Your task to perform on an android device: change the clock display to analog Image 0: 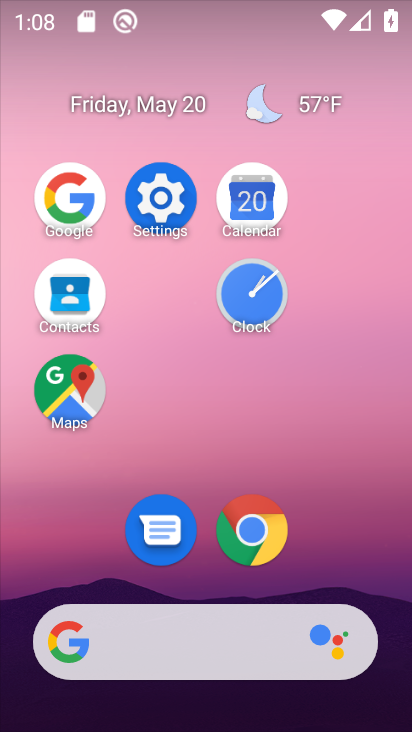
Step 0: click (262, 291)
Your task to perform on an android device: change the clock display to analog Image 1: 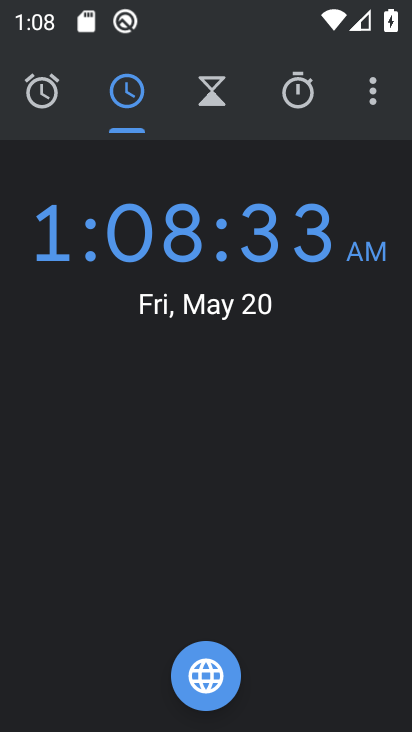
Step 1: click (390, 109)
Your task to perform on an android device: change the clock display to analog Image 2: 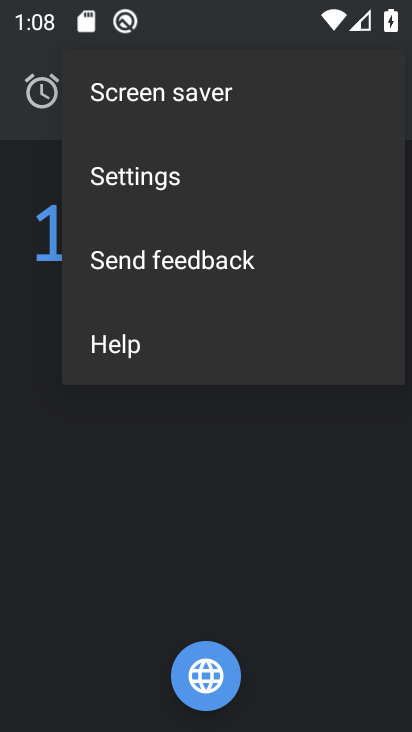
Step 2: click (117, 166)
Your task to perform on an android device: change the clock display to analog Image 3: 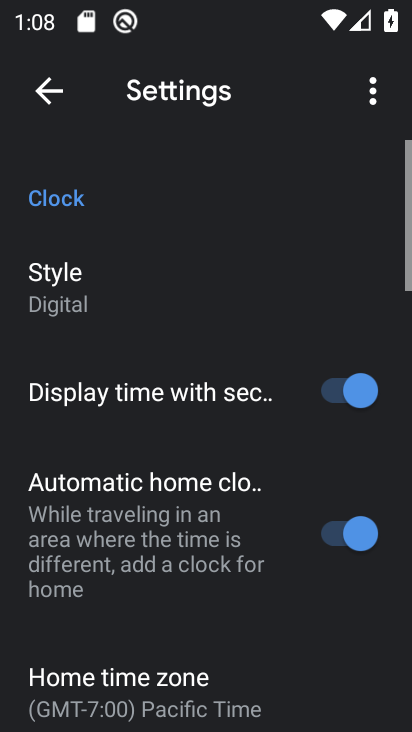
Step 3: click (132, 294)
Your task to perform on an android device: change the clock display to analog Image 4: 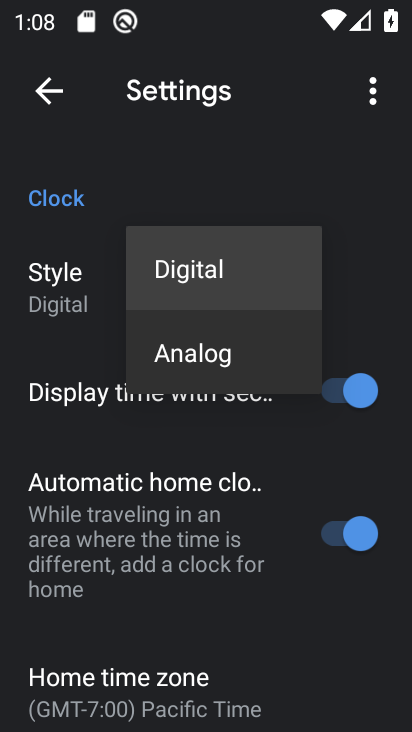
Step 4: click (167, 352)
Your task to perform on an android device: change the clock display to analog Image 5: 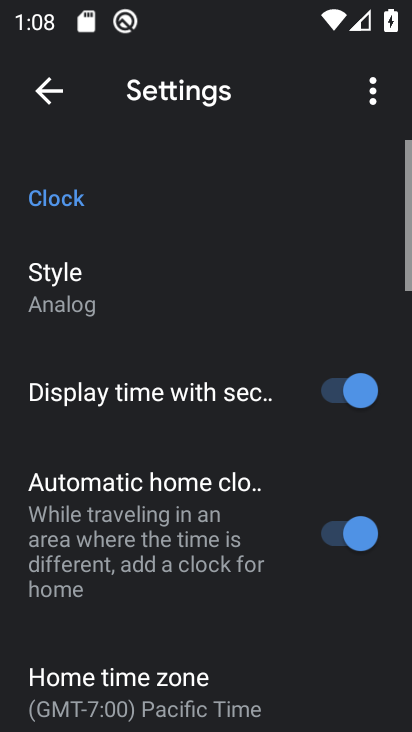
Step 5: task complete